Your task to perform on an android device: Open my contact list Image 0: 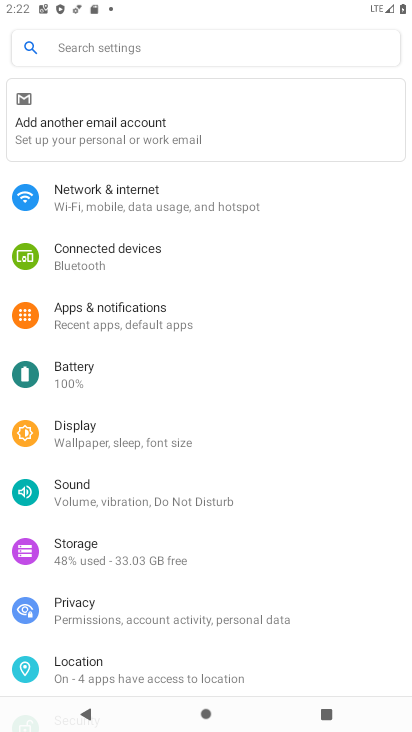
Step 0: press home button
Your task to perform on an android device: Open my contact list Image 1: 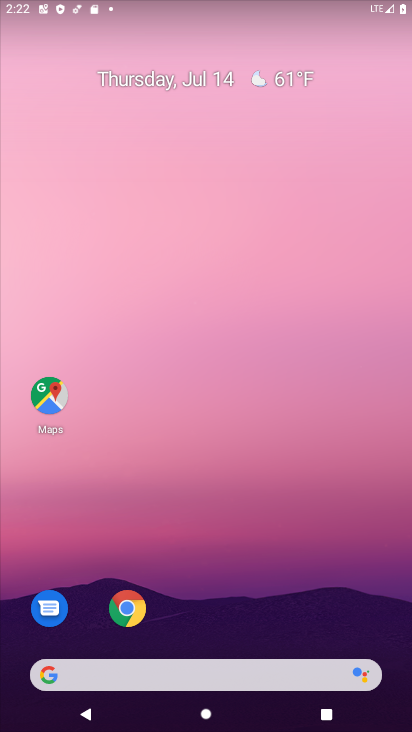
Step 1: drag from (224, 657) to (238, 301)
Your task to perform on an android device: Open my contact list Image 2: 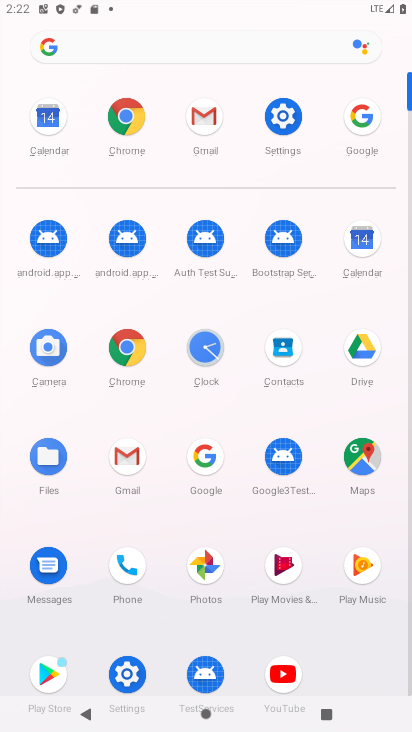
Step 2: click (275, 357)
Your task to perform on an android device: Open my contact list Image 3: 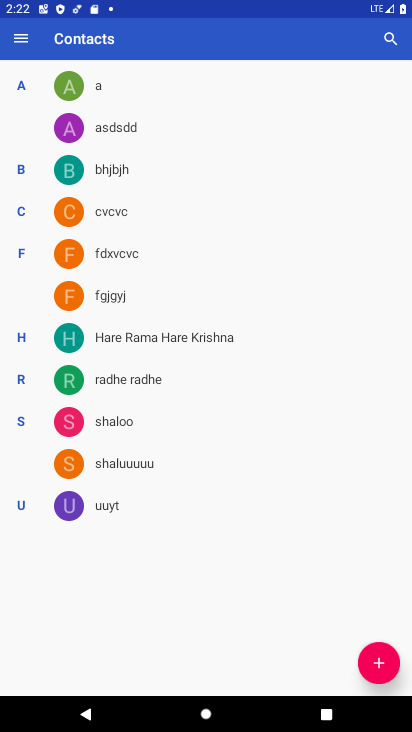
Step 3: task complete